Your task to perform on an android device: open device folders in google photos Image 0: 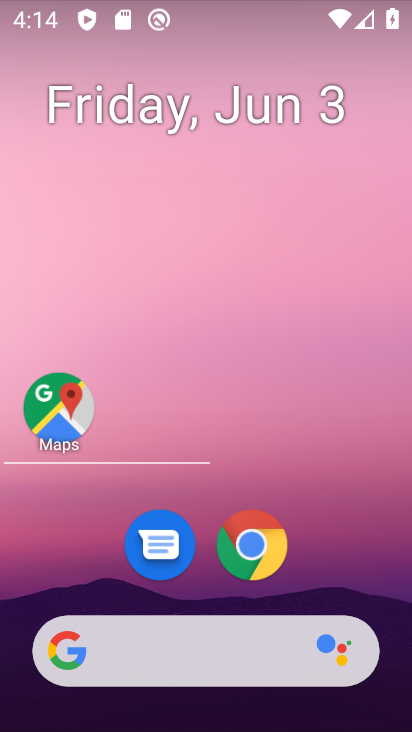
Step 0: click (258, 571)
Your task to perform on an android device: open device folders in google photos Image 1: 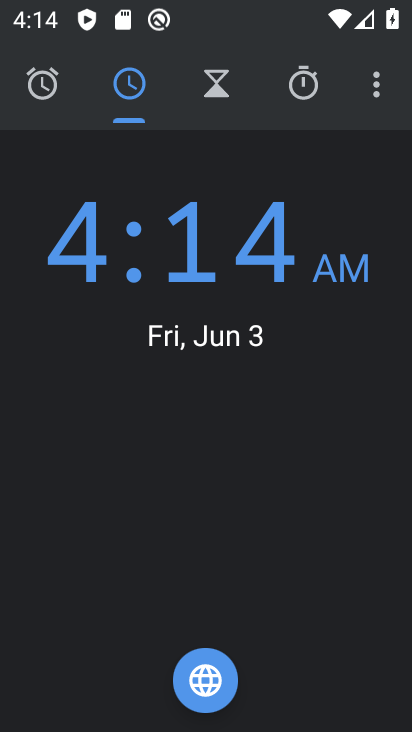
Step 1: press home button
Your task to perform on an android device: open device folders in google photos Image 2: 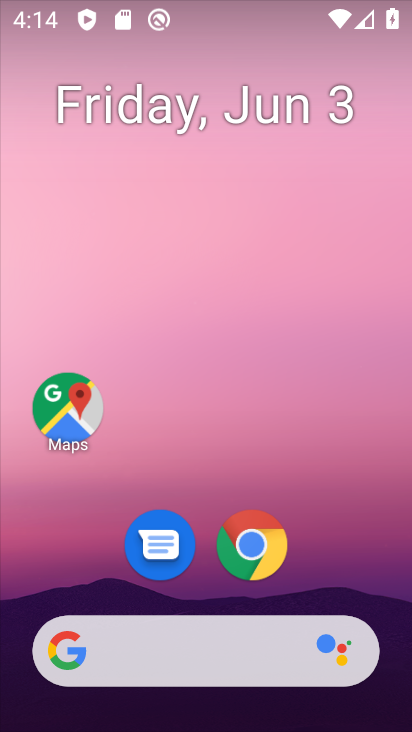
Step 2: drag from (80, 563) to (187, 85)
Your task to perform on an android device: open device folders in google photos Image 3: 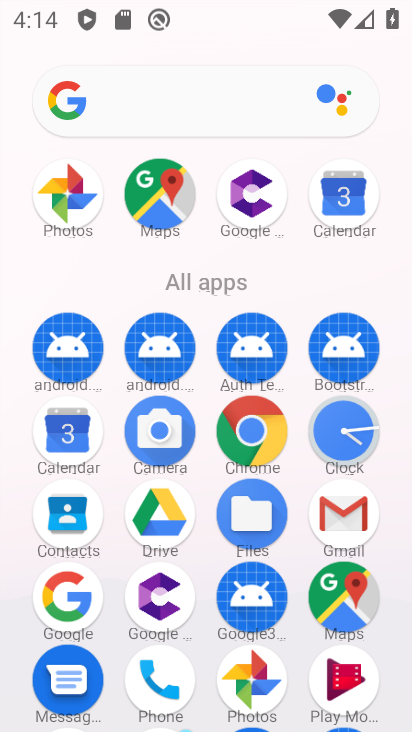
Step 3: click (269, 663)
Your task to perform on an android device: open device folders in google photos Image 4: 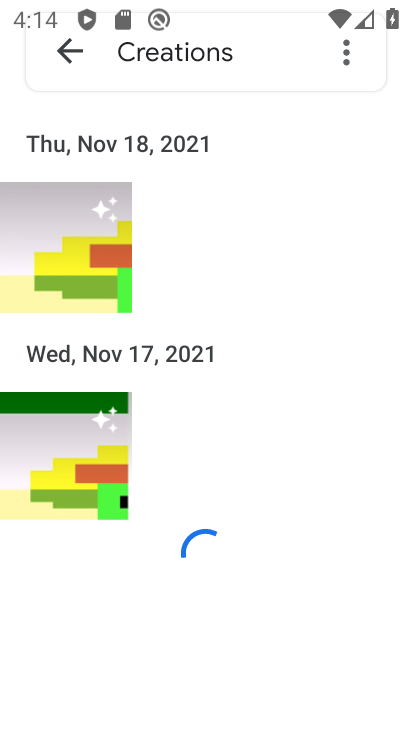
Step 4: click (71, 61)
Your task to perform on an android device: open device folders in google photos Image 5: 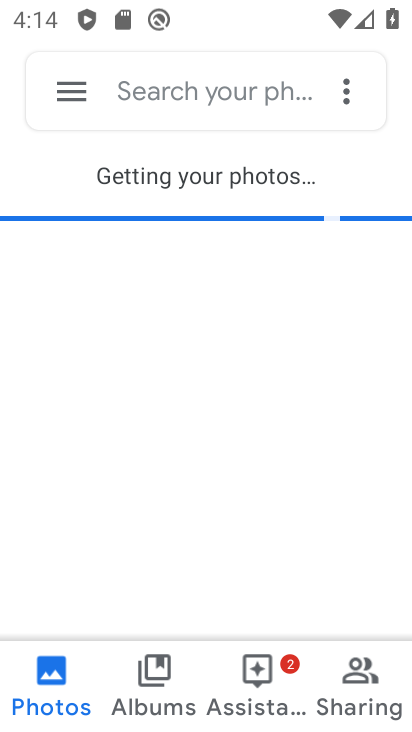
Step 5: click (70, 61)
Your task to perform on an android device: open device folders in google photos Image 6: 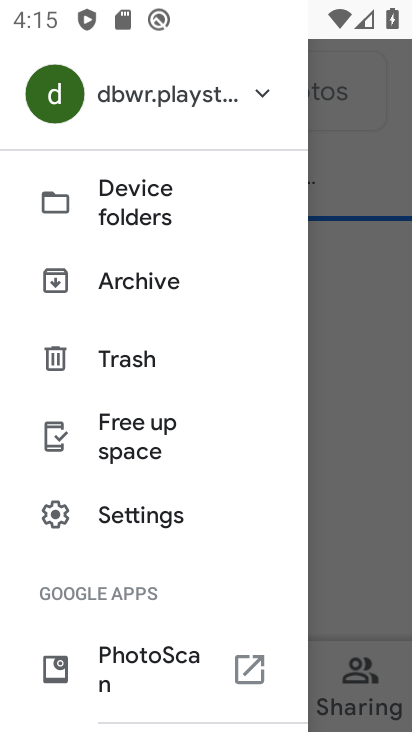
Step 6: click (150, 190)
Your task to perform on an android device: open device folders in google photos Image 7: 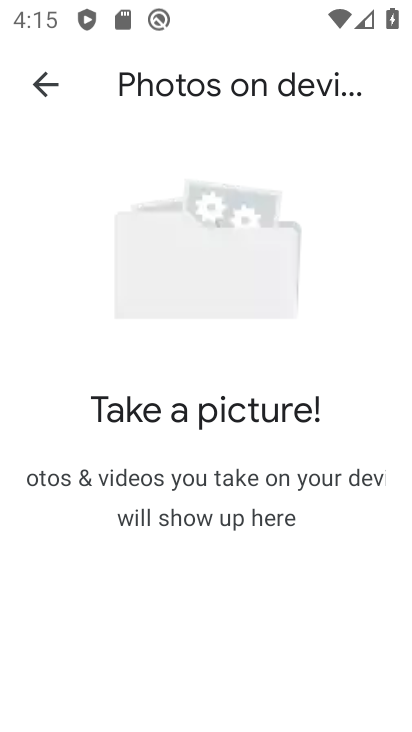
Step 7: task complete